Your task to perform on an android device: check google app version Image 0: 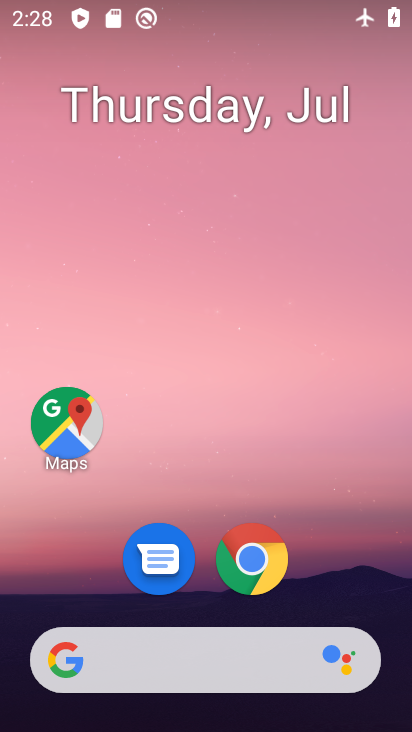
Step 0: drag from (262, 483) to (306, 112)
Your task to perform on an android device: check google app version Image 1: 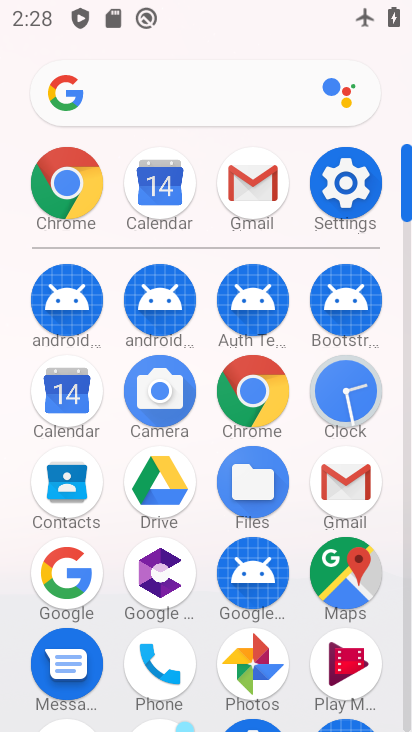
Step 1: click (77, 563)
Your task to perform on an android device: check google app version Image 2: 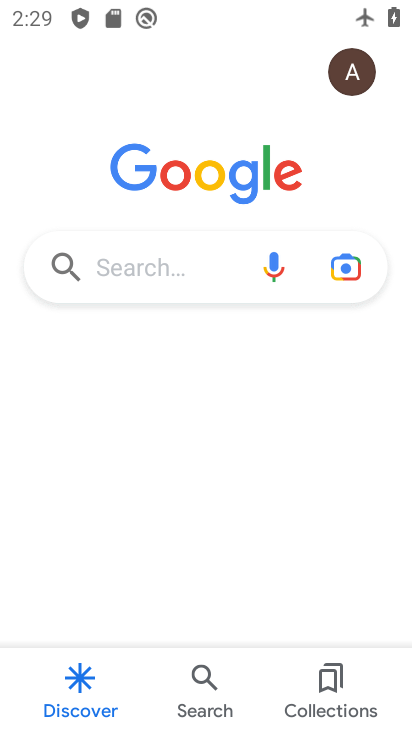
Step 2: click (352, 60)
Your task to perform on an android device: check google app version Image 3: 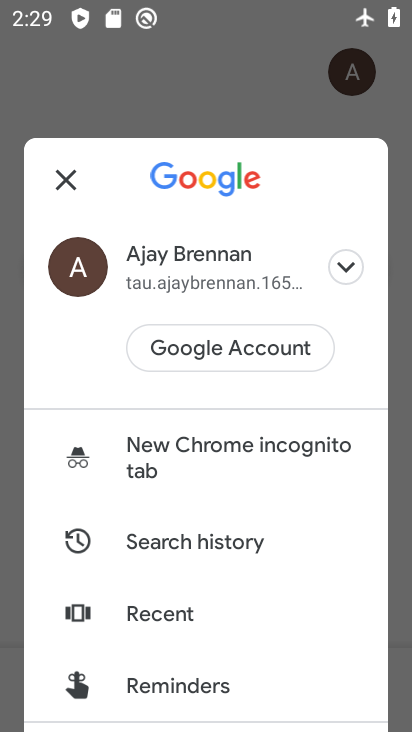
Step 3: drag from (224, 609) to (204, 342)
Your task to perform on an android device: check google app version Image 4: 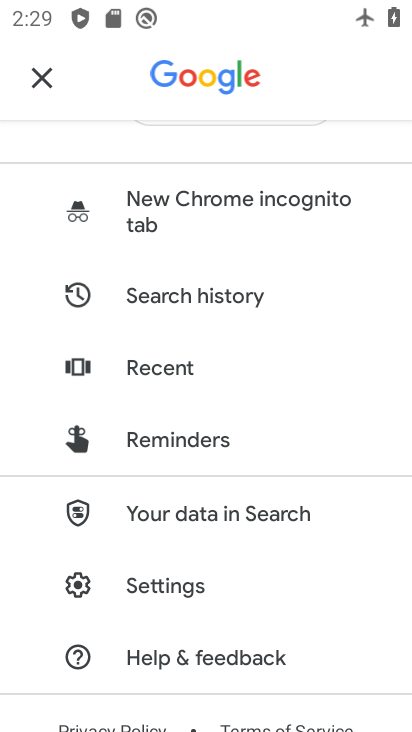
Step 4: click (183, 589)
Your task to perform on an android device: check google app version Image 5: 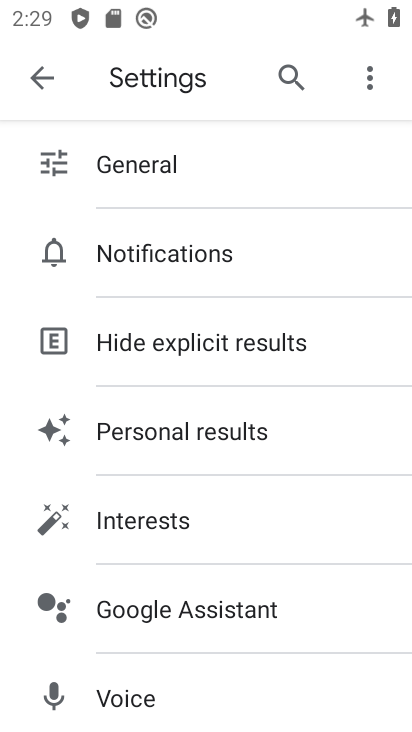
Step 5: drag from (164, 520) to (226, 128)
Your task to perform on an android device: check google app version Image 6: 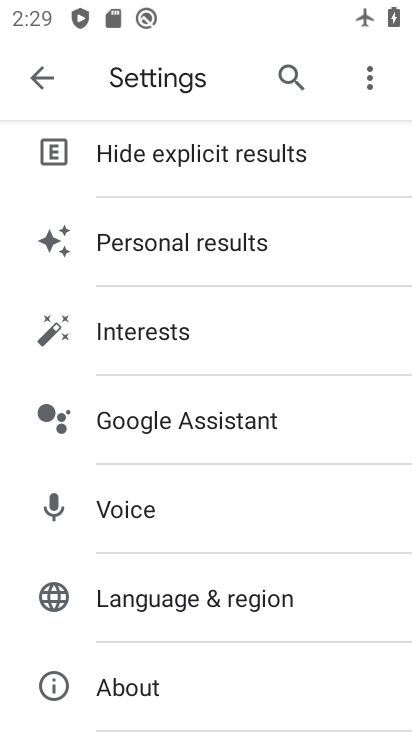
Step 6: click (148, 686)
Your task to perform on an android device: check google app version Image 7: 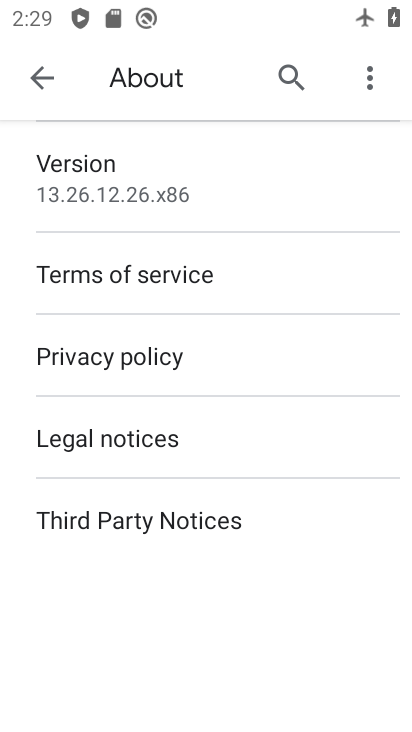
Step 7: task complete